Your task to perform on an android device: What's the weather today? Image 0: 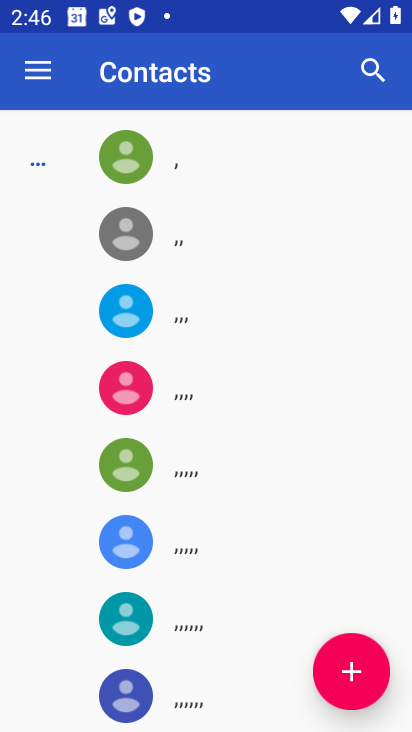
Step 0: press home button
Your task to perform on an android device: What's the weather today? Image 1: 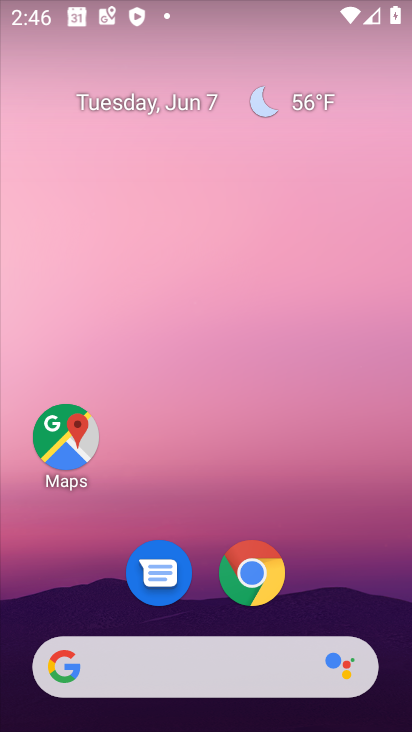
Step 1: click (212, 655)
Your task to perform on an android device: What's the weather today? Image 2: 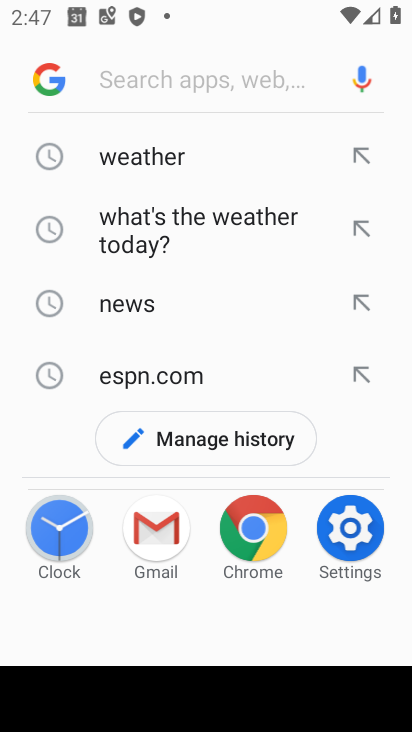
Step 2: type "what's the weather today "
Your task to perform on an android device: What's the weather today? Image 3: 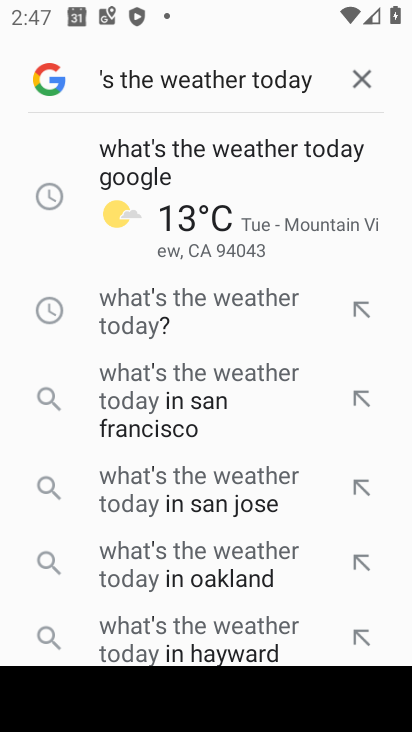
Step 3: click (180, 185)
Your task to perform on an android device: What's the weather today? Image 4: 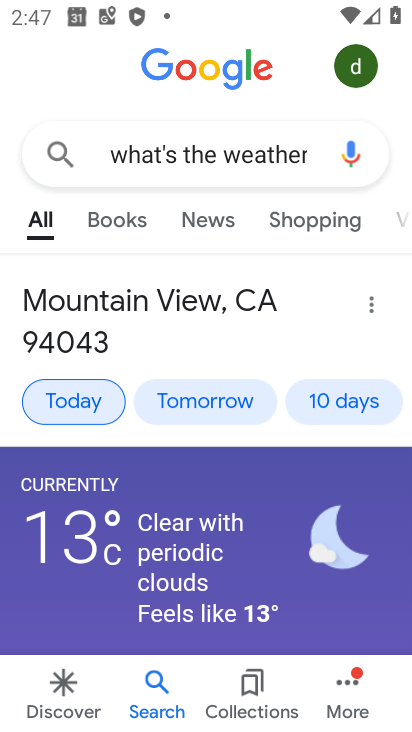
Step 4: task complete